Your task to perform on an android device: Go to sound settings Image 0: 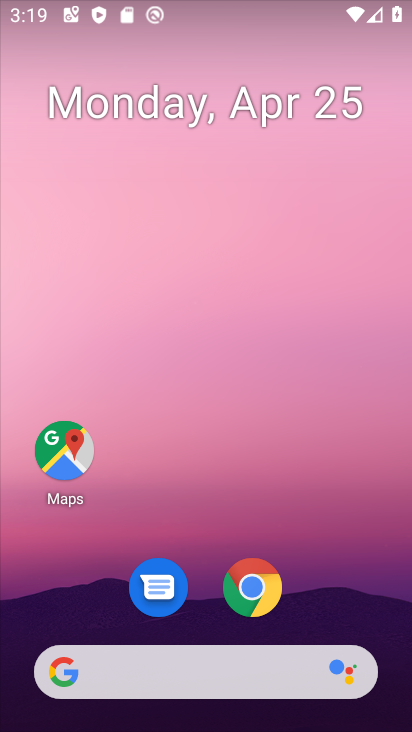
Step 0: drag from (209, 602) to (226, 125)
Your task to perform on an android device: Go to sound settings Image 1: 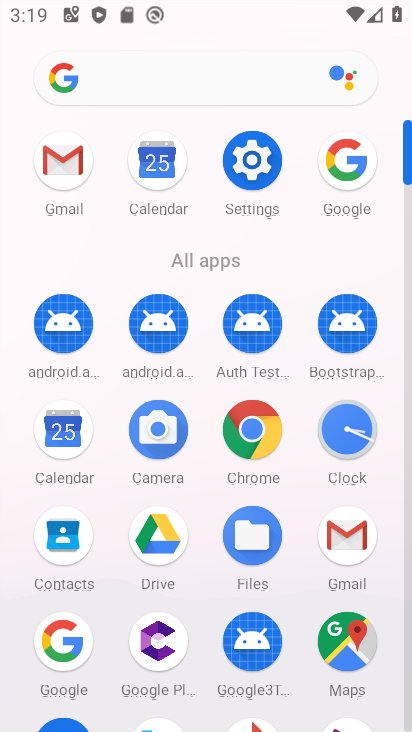
Step 1: click (250, 167)
Your task to perform on an android device: Go to sound settings Image 2: 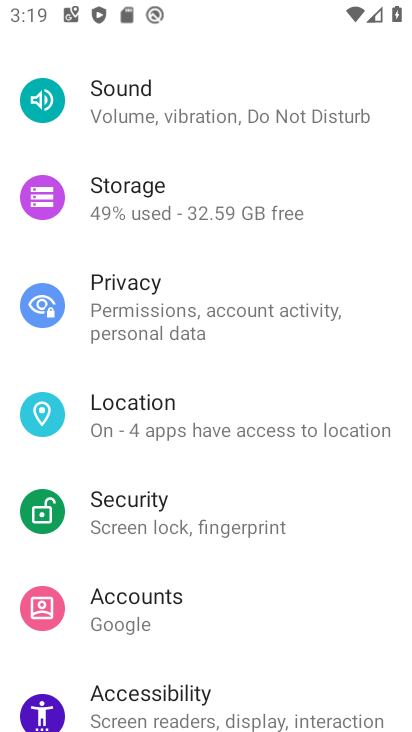
Step 2: drag from (231, 547) to (216, 598)
Your task to perform on an android device: Go to sound settings Image 3: 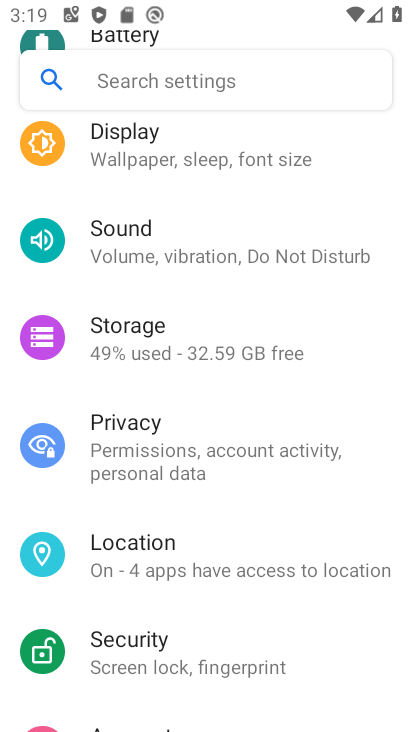
Step 3: click (129, 242)
Your task to perform on an android device: Go to sound settings Image 4: 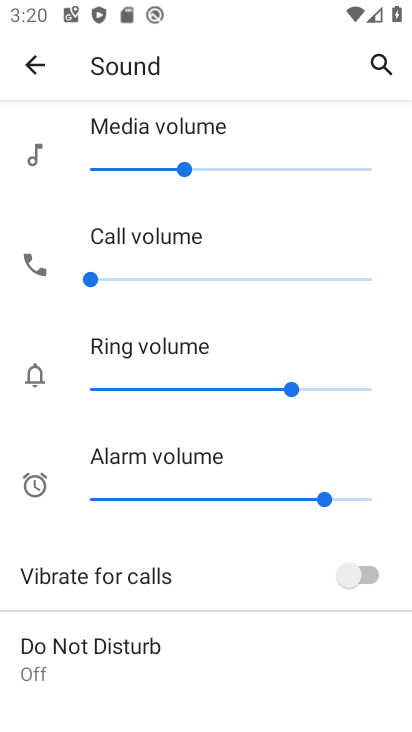
Step 4: task complete